Your task to perform on an android device: What's the weather going to be tomorrow? Image 0: 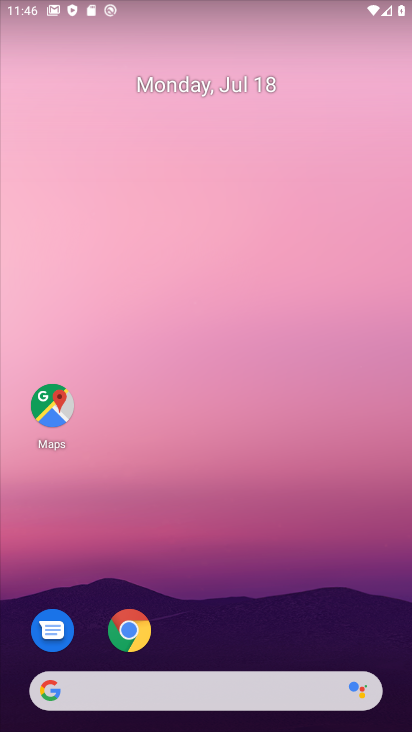
Step 0: click (239, 684)
Your task to perform on an android device: What's the weather going to be tomorrow? Image 1: 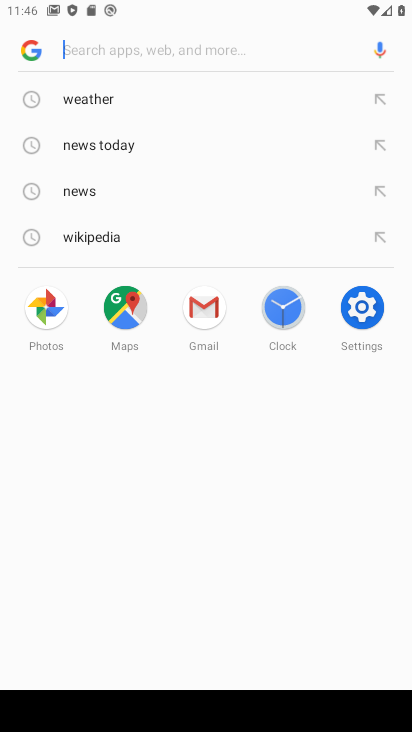
Step 1: type "What's the weather going to be tomorrow?"
Your task to perform on an android device: What's the weather going to be tomorrow? Image 2: 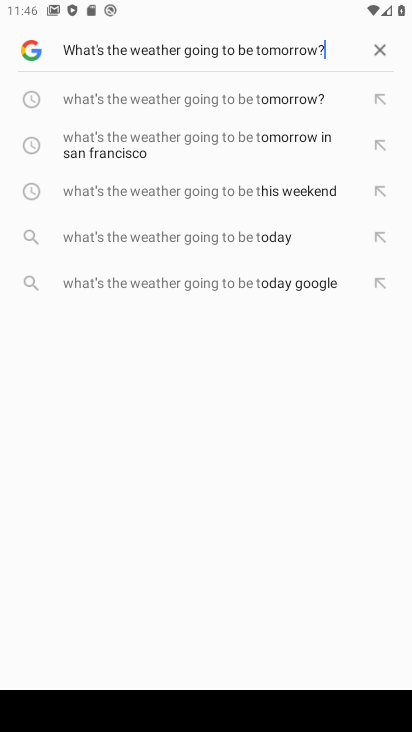
Step 2: press enter
Your task to perform on an android device: What's the weather going to be tomorrow? Image 3: 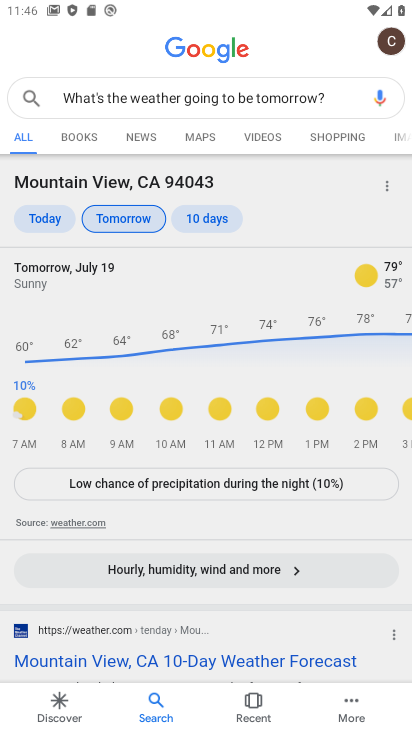
Step 3: task complete